Your task to perform on an android device: Go to Reddit.com Image 0: 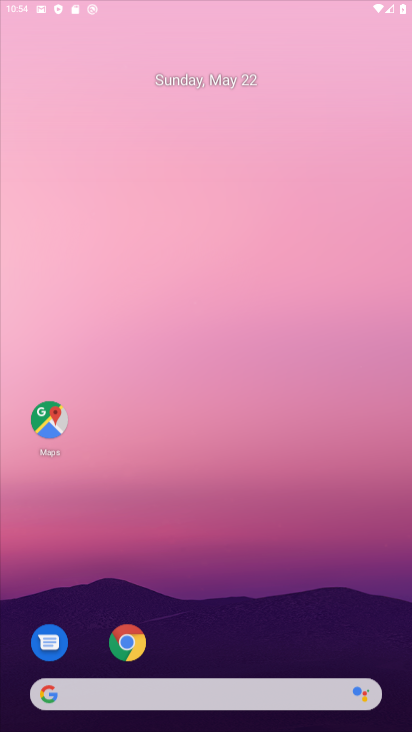
Step 0: press home button
Your task to perform on an android device: Go to Reddit.com Image 1: 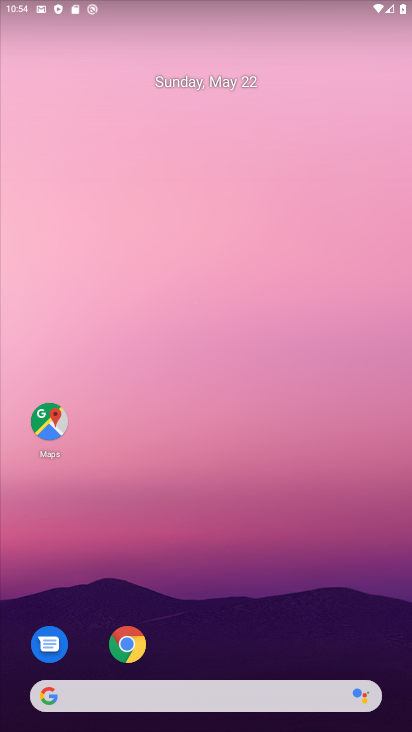
Step 1: click (125, 638)
Your task to perform on an android device: Go to Reddit.com Image 2: 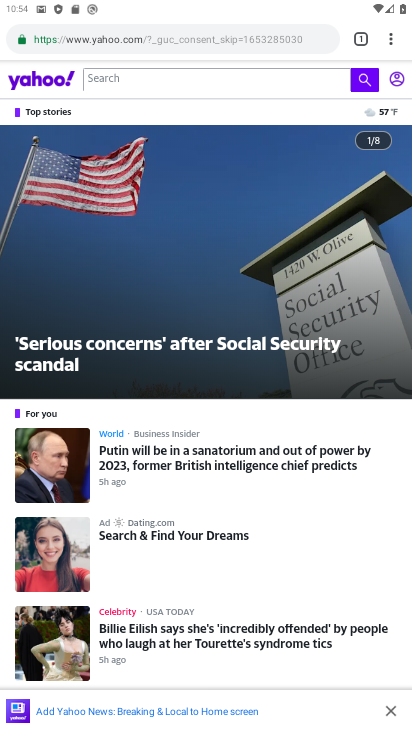
Step 2: click (359, 33)
Your task to perform on an android device: Go to Reddit.com Image 3: 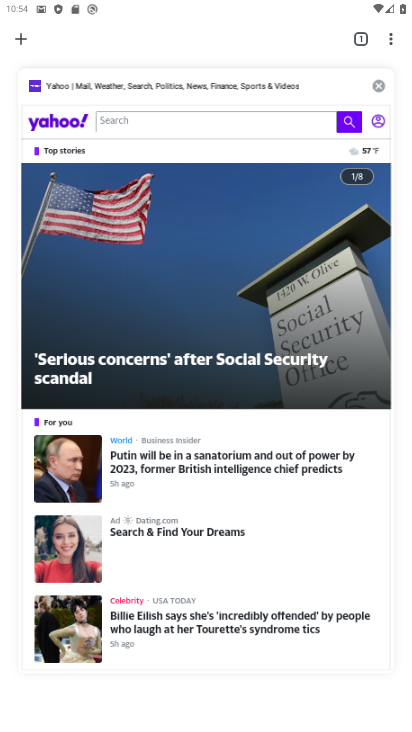
Step 3: click (373, 78)
Your task to perform on an android device: Go to Reddit.com Image 4: 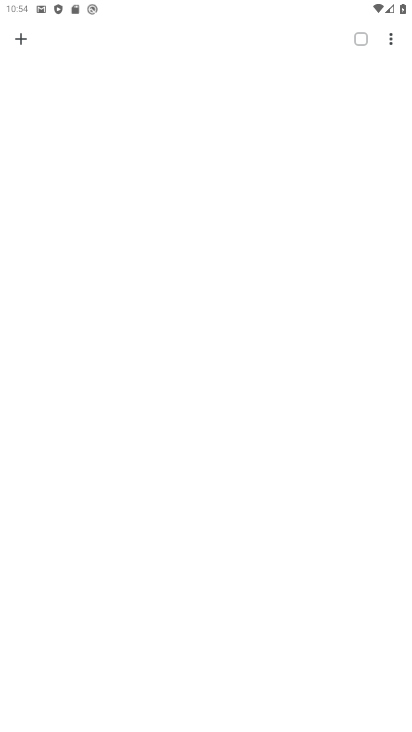
Step 4: click (24, 37)
Your task to perform on an android device: Go to Reddit.com Image 5: 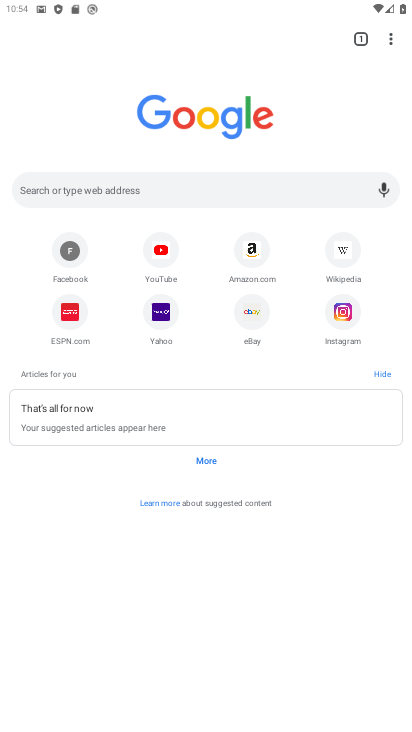
Step 5: click (99, 179)
Your task to perform on an android device: Go to Reddit.com Image 6: 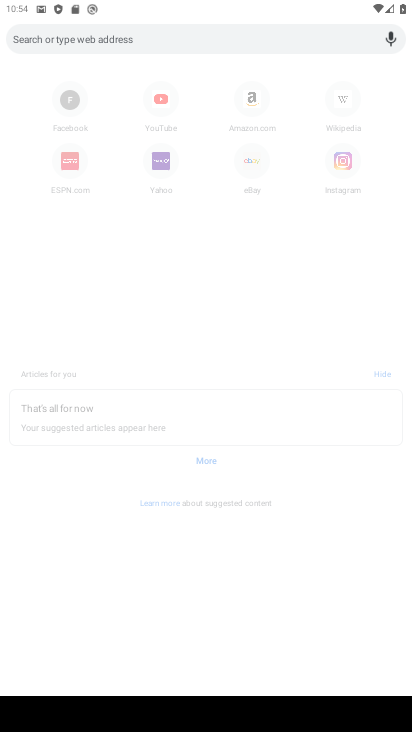
Step 6: type "reddit"
Your task to perform on an android device: Go to Reddit.com Image 7: 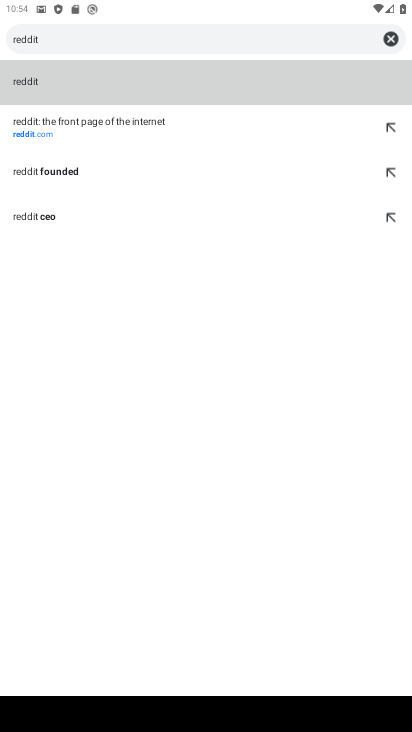
Step 7: click (92, 127)
Your task to perform on an android device: Go to Reddit.com Image 8: 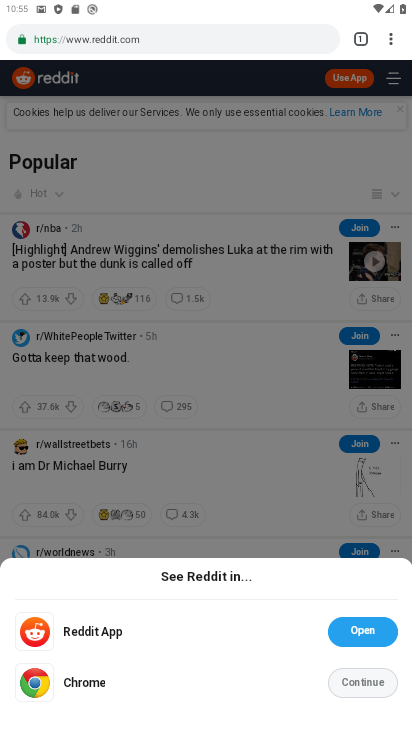
Step 8: click (367, 673)
Your task to perform on an android device: Go to Reddit.com Image 9: 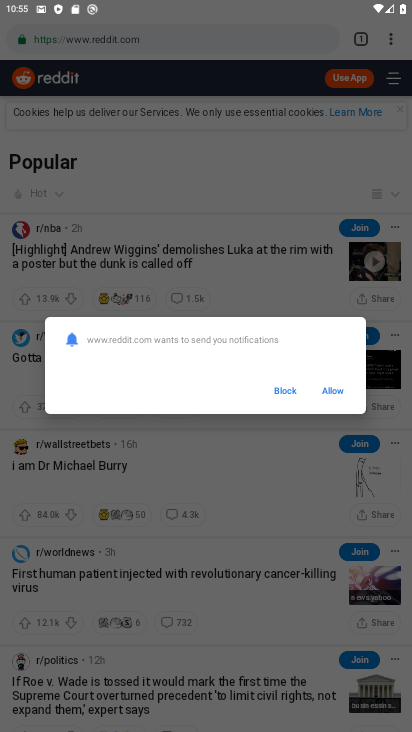
Step 9: click (281, 387)
Your task to perform on an android device: Go to Reddit.com Image 10: 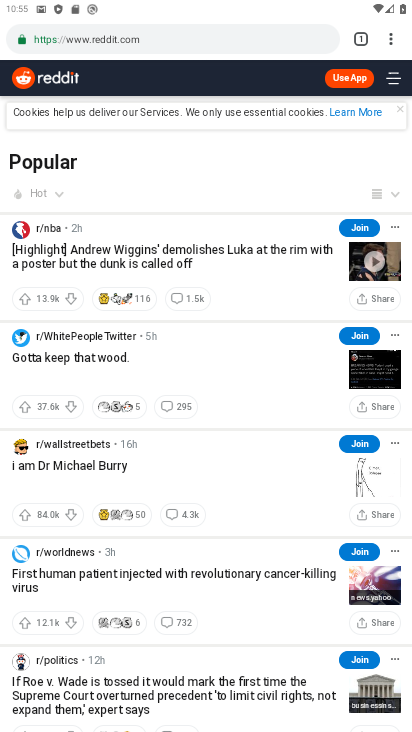
Step 10: task complete